Your task to perform on an android device: Set an alarmfor 5pm Image 0: 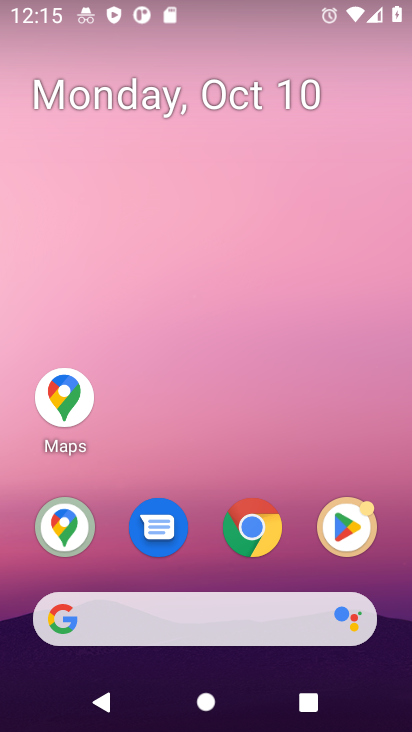
Step 0: drag from (204, 552) to (263, 97)
Your task to perform on an android device: Set an alarmfor 5pm Image 1: 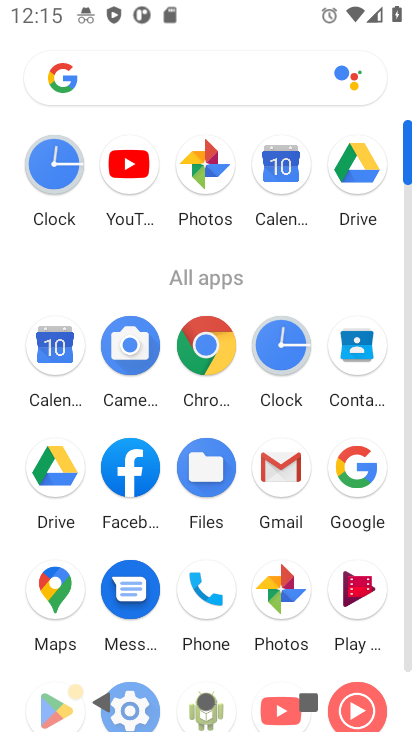
Step 1: click (280, 351)
Your task to perform on an android device: Set an alarmfor 5pm Image 2: 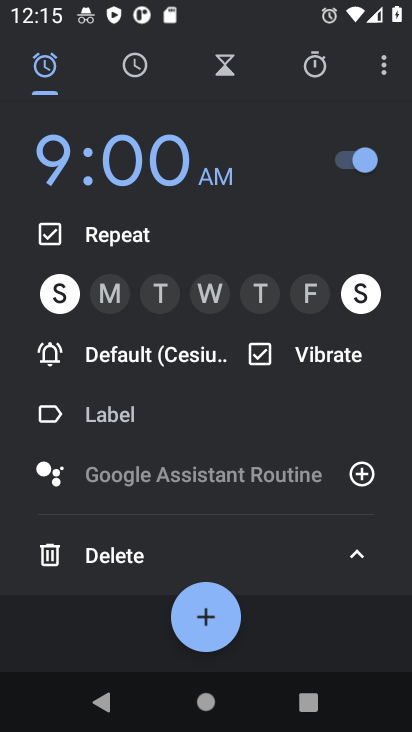
Step 2: click (74, 170)
Your task to perform on an android device: Set an alarmfor 5pm Image 3: 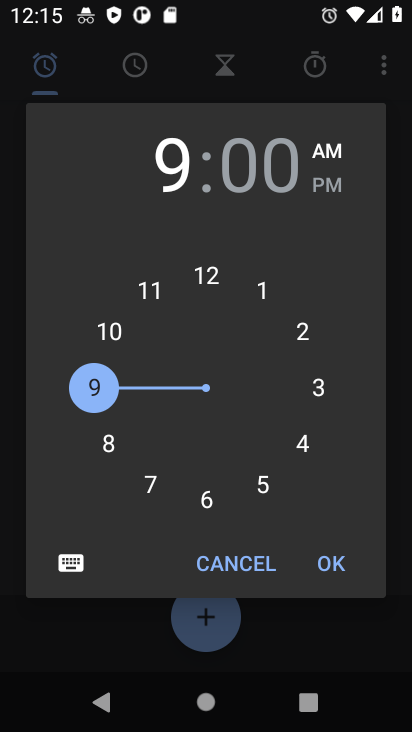
Step 3: click (263, 475)
Your task to perform on an android device: Set an alarmfor 5pm Image 4: 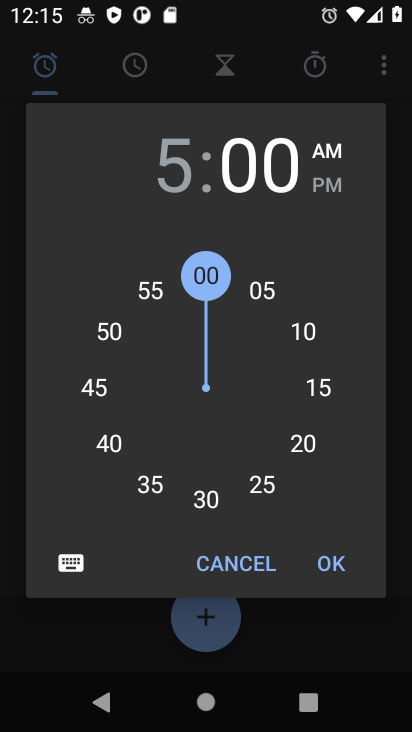
Step 4: click (324, 187)
Your task to perform on an android device: Set an alarmfor 5pm Image 5: 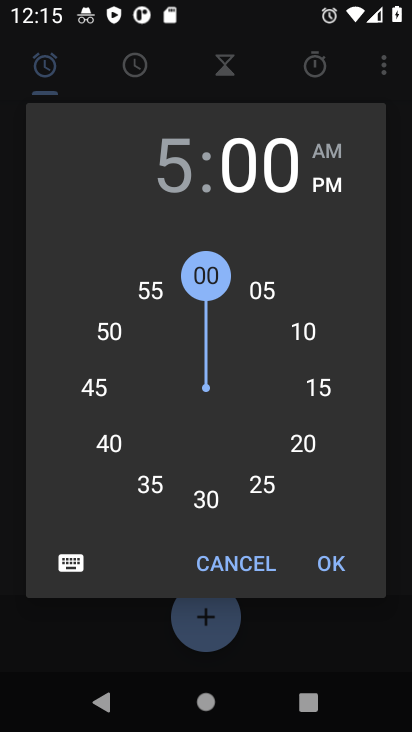
Step 5: click (334, 561)
Your task to perform on an android device: Set an alarmfor 5pm Image 6: 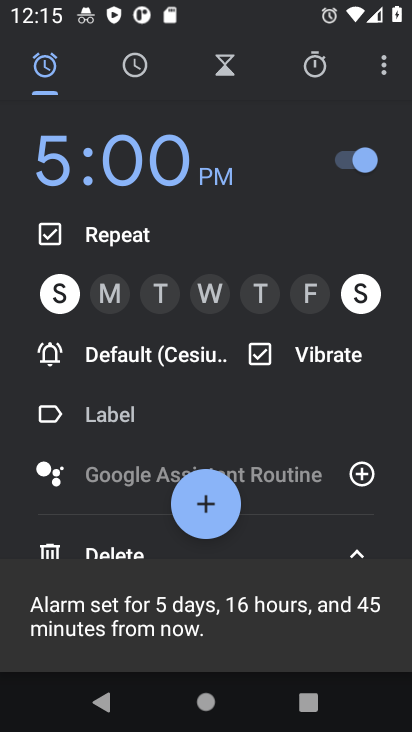
Step 6: task complete